Your task to perform on an android device: set default search engine in the chrome app Image 0: 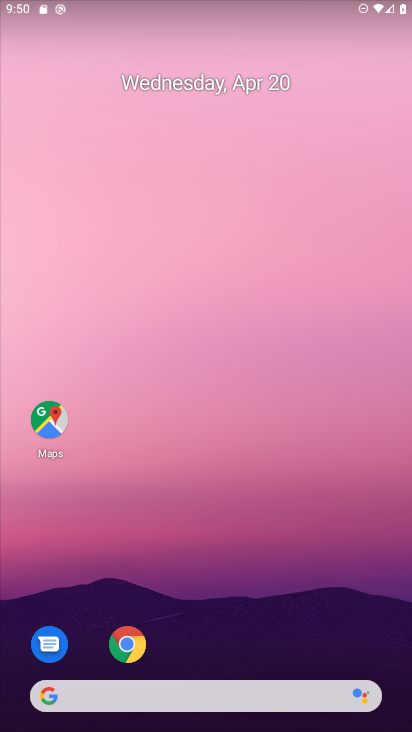
Step 0: drag from (304, 621) to (205, 38)
Your task to perform on an android device: set default search engine in the chrome app Image 1: 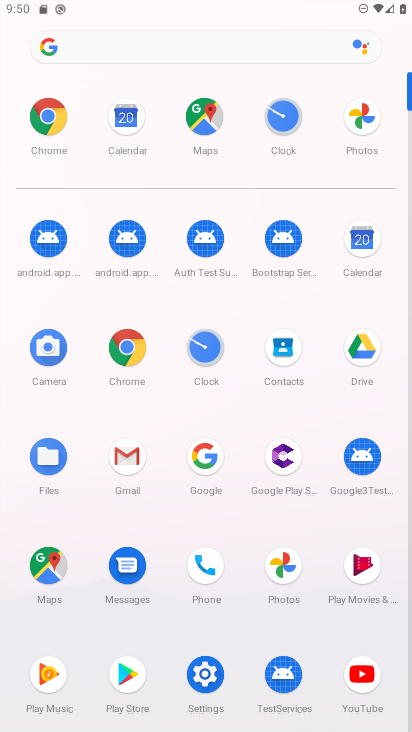
Step 1: click (50, 104)
Your task to perform on an android device: set default search engine in the chrome app Image 2: 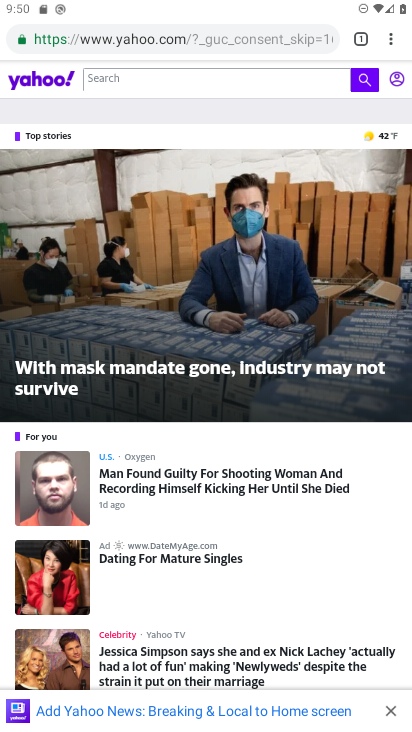
Step 2: press back button
Your task to perform on an android device: set default search engine in the chrome app Image 3: 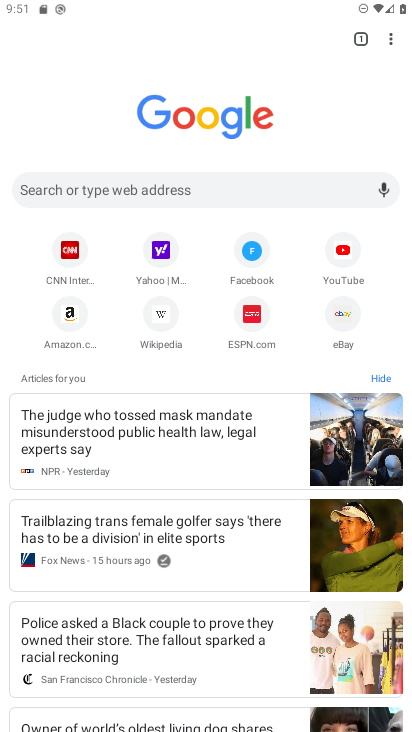
Step 3: click (390, 30)
Your task to perform on an android device: set default search engine in the chrome app Image 4: 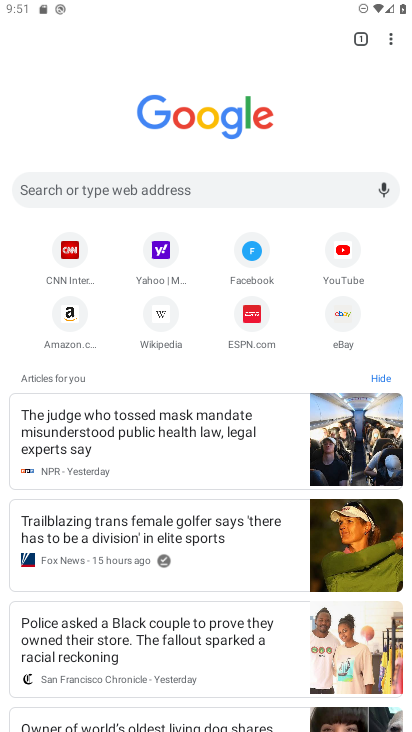
Step 4: click (390, 36)
Your task to perform on an android device: set default search engine in the chrome app Image 5: 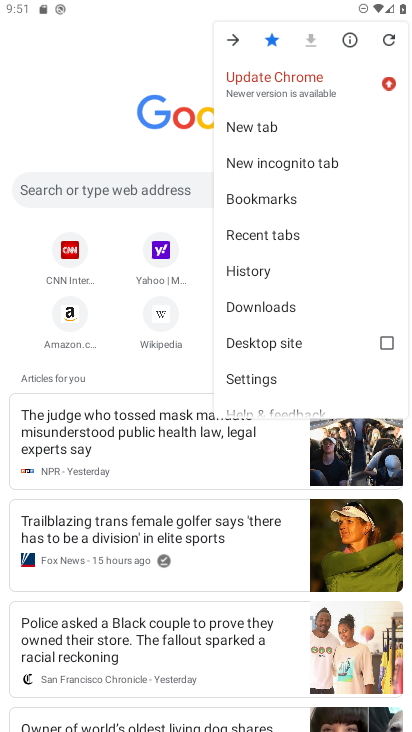
Step 5: click (257, 381)
Your task to perform on an android device: set default search engine in the chrome app Image 6: 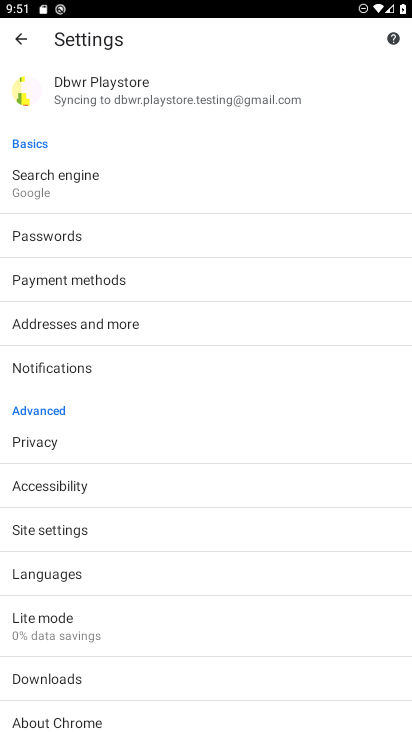
Step 6: click (137, 180)
Your task to perform on an android device: set default search engine in the chrome app Image 7: 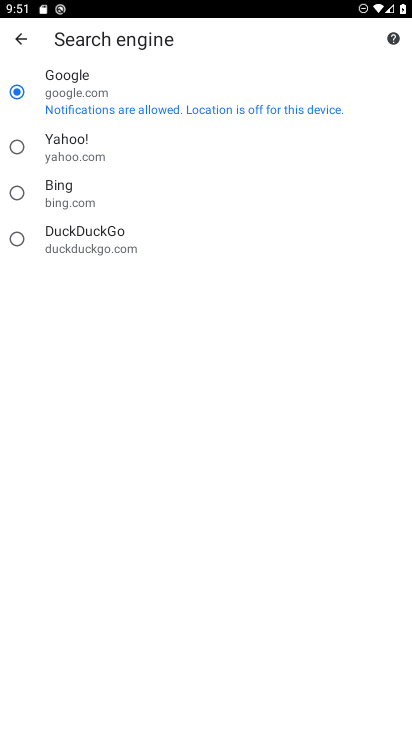
Step 7: click (86, 160)
Your task to perform on an android device: set default search engine in the chrome app Image 8: 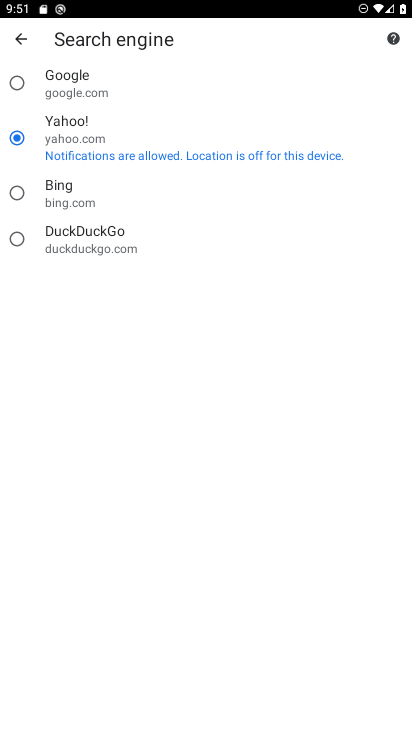
Step 8: task complete